Your task to perform on an android device: Open calendar and show me the first week of next month Image 0: 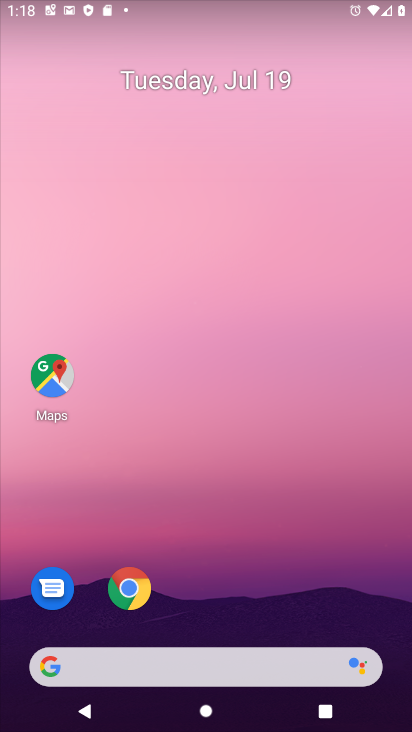
Step 0: drag from (267, 562) to (263, 0)
Your task to perform on an android device: Open calendar and show me the first week of next month Image 1: 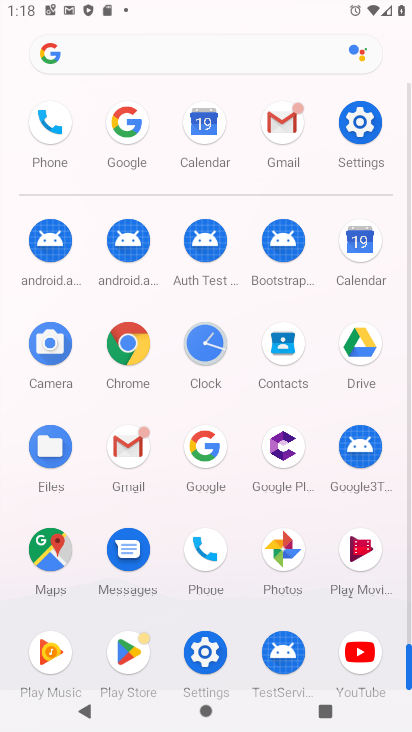
Step 1: click (356, 257)
Your task to perform on an android device: Open calendar and show me the first week of next month Image 2: 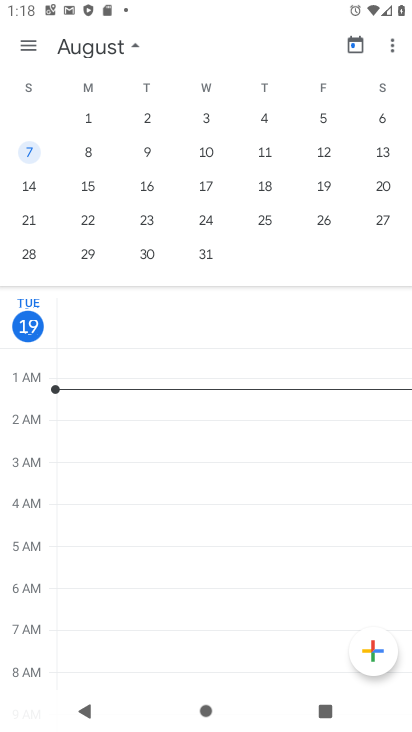
Step 2: drag from (376, 214) to (60, 120)
Your task to perform on an android device: Open calendar and show me the first week of next month Image 3: 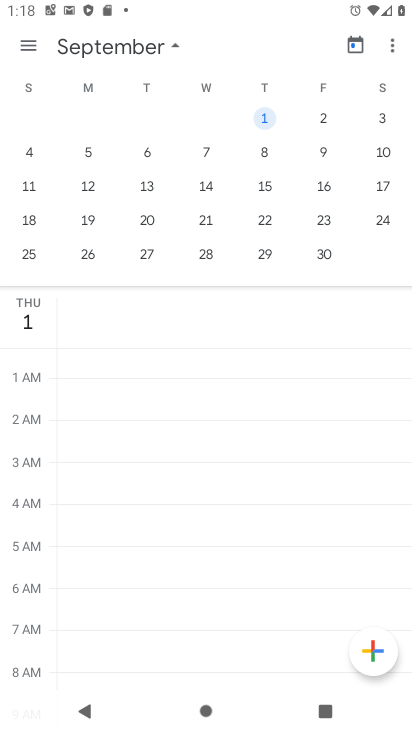
Step 3: click (25, 154)
Your task to perform on an android device: Open calendar and show me the first week of next month Image 4: 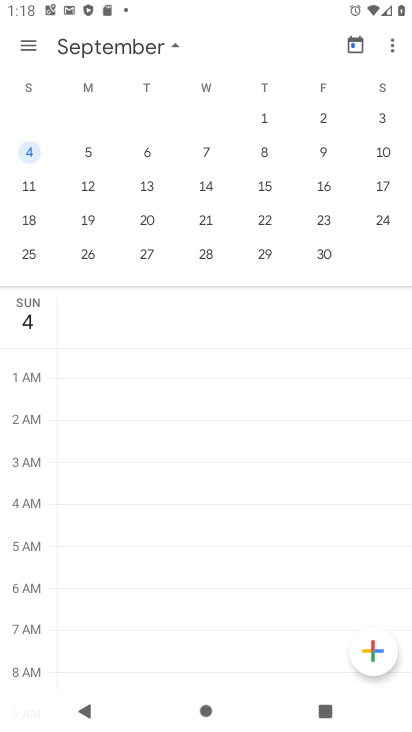
Step 4: task complete